Your task to perform on an android device: Go to Google maps Image 0: 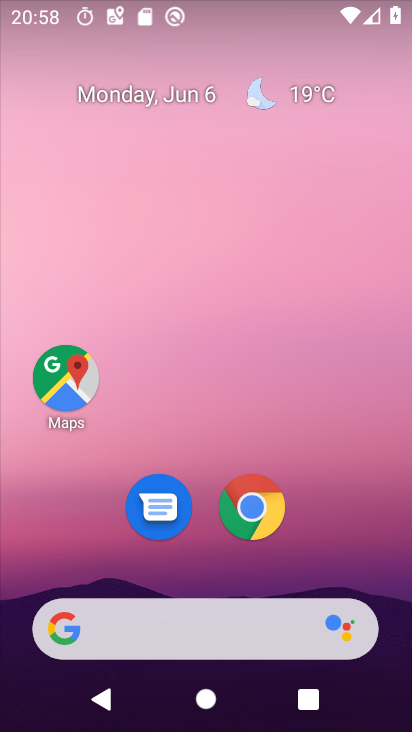
Step 0: press home button
Your task to perform on an android device: Go to Google maps Image 1: 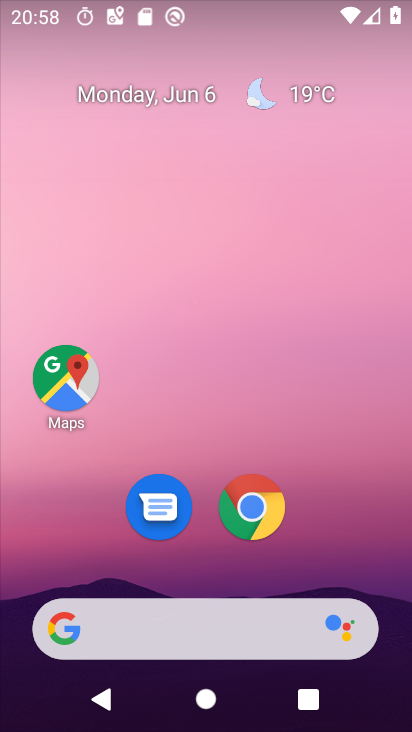
Step 1: click (44, 374)
Your task to perform on an android device: Go to Google maps Image 2: 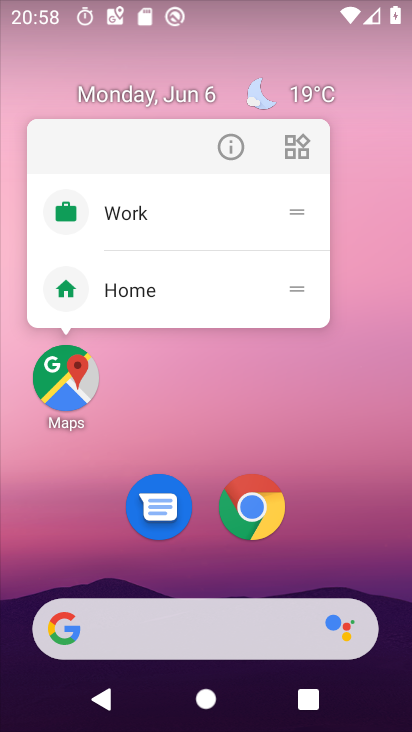
Step 2: click (44, 374)
Your task to perform on an android device: Go to Google maps Image 3: 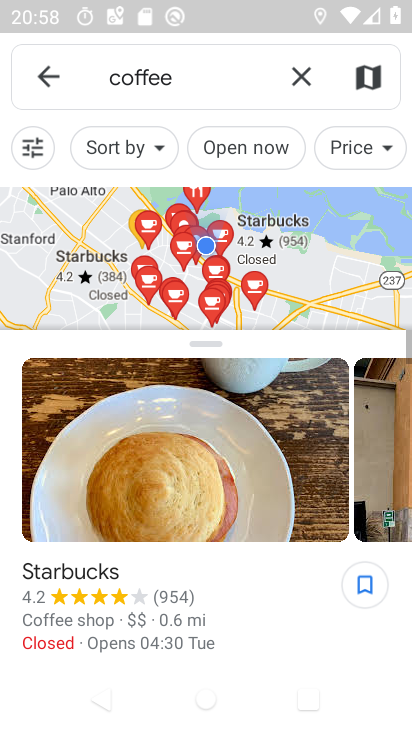
Step 3: task complete